Your task to perform on an android device: add a contact in the contacts app Image 0: 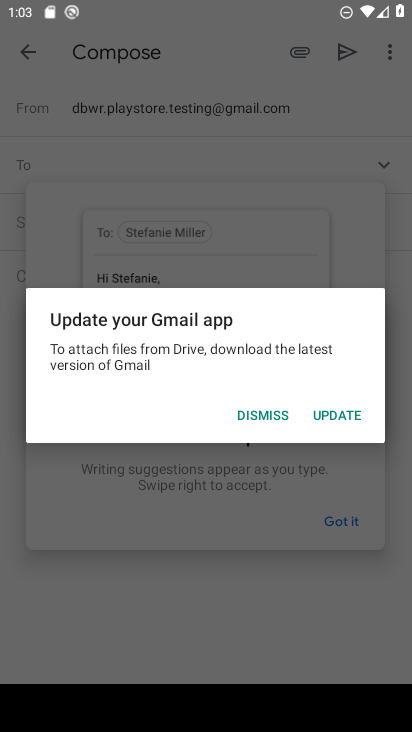
Step 0: press home button
Your task to perform on an android device: add a contact in the contacts app Image 1: 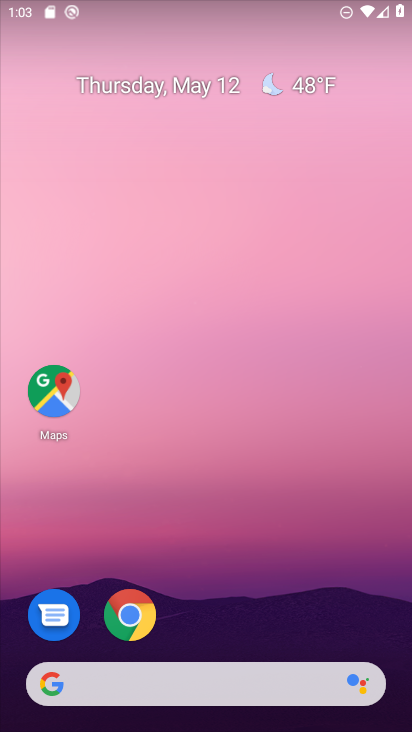
Step 1: drag from (195, 657) to (283, 1)
Your task to perform on an android device: add a contact in the contacts app Image 2: 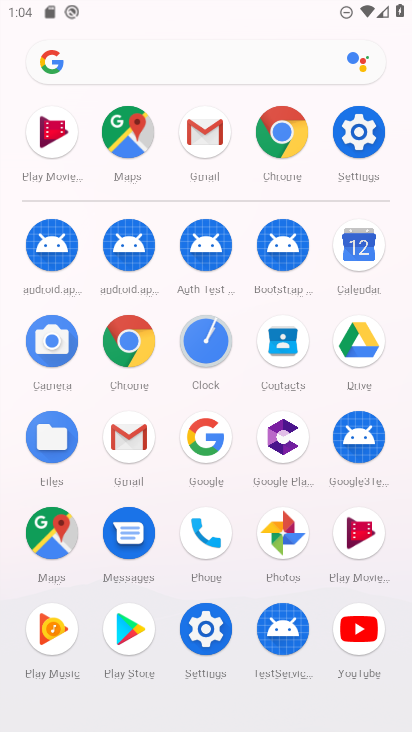
Step 2: click (275, 353)
Your task to perform on an android device: add a contact in the contacts app Image 3: 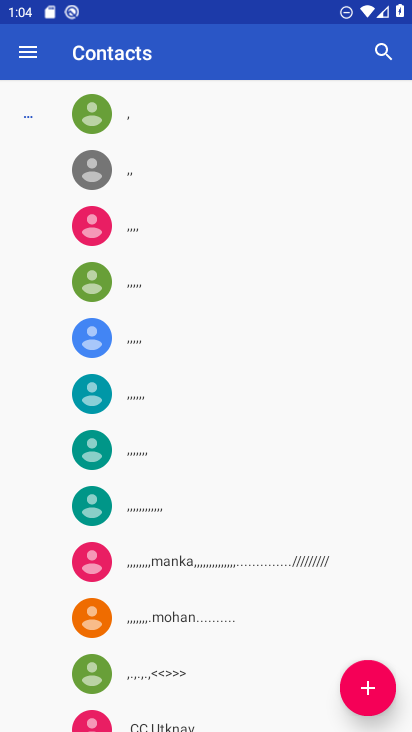
Step 3: click (374, 694)
Your task to perform on an android device: add a contact in the contacts app Image 4: 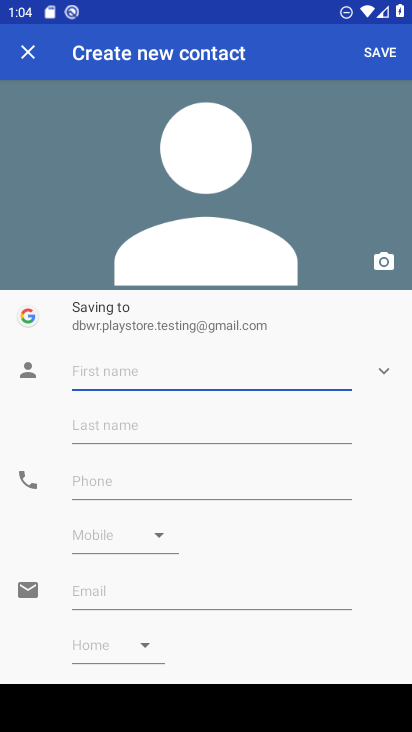
Step 4: click (195, 376)
Your task to perform on an android device: add a contact in the contacts app Image 5: 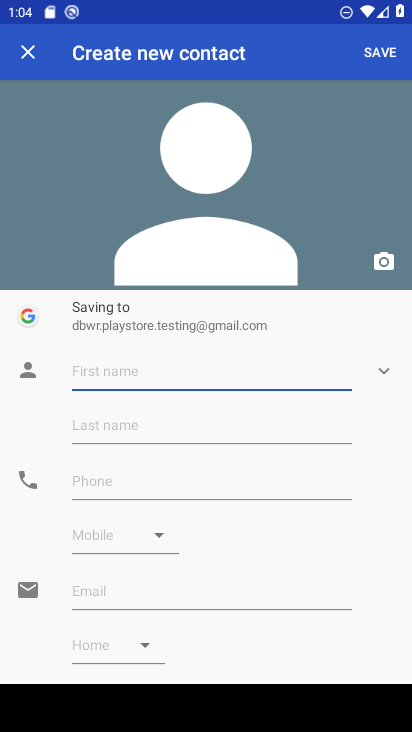
Step 5: type "kjhkkjjkkj"
Your task to perform on an android device: add a contact in the contacts app Image 6: 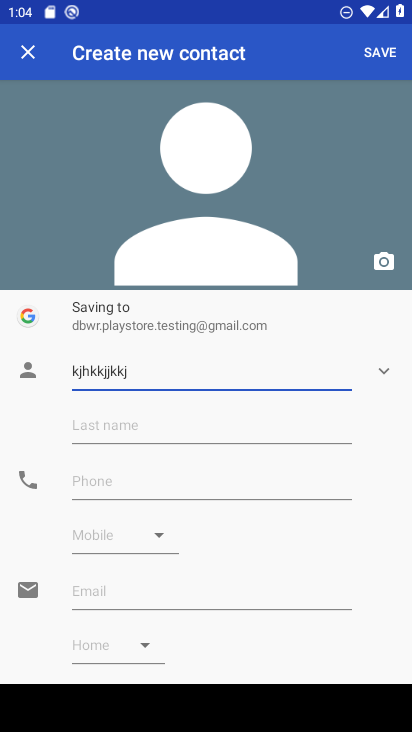
Step 6: click (200, 488)
Your task to perform on an android device: add a contact in the contacts app Image 7: 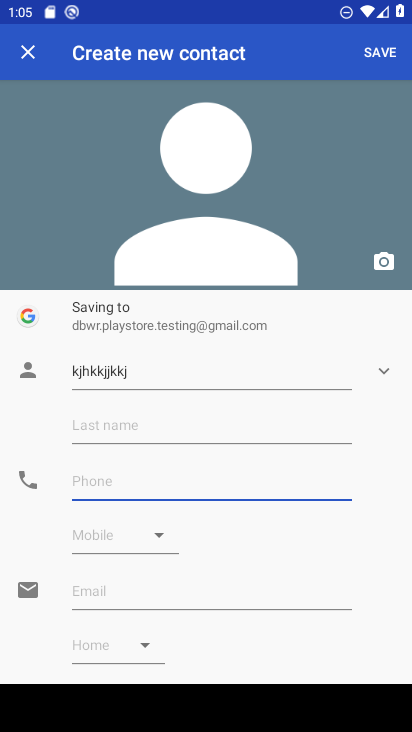
Step 7: type "7678976567"
Your task to perform on an android device: add a contact in the contacts app Image 8: 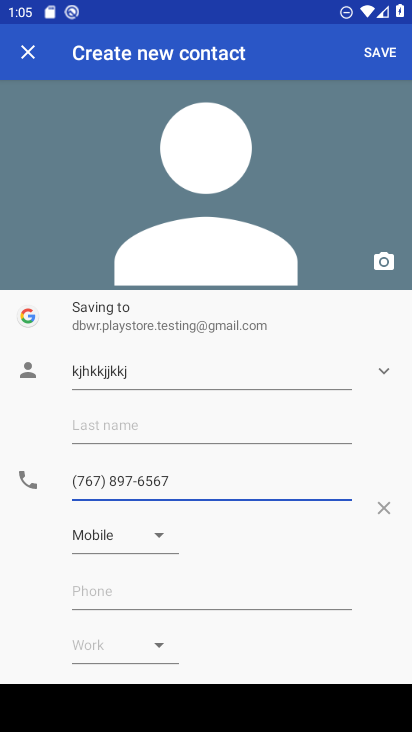
Step 8: click (371, 51)
Your task to perform on an android device: add a contact in the contacts app Image 9: 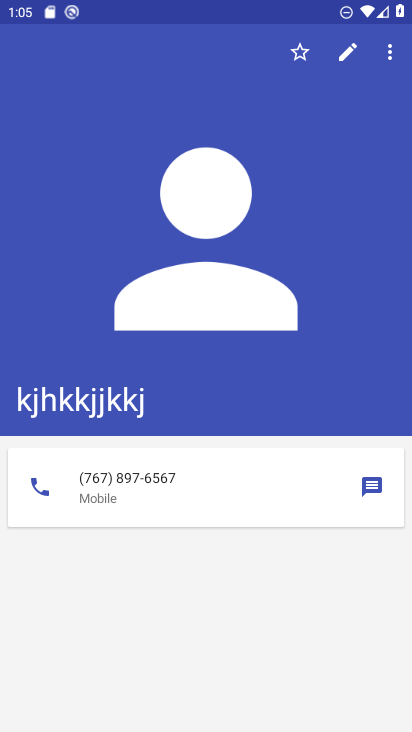
Step 9: task complete